Your task to perform on an android device: add a contact in the contacts app Image 0: 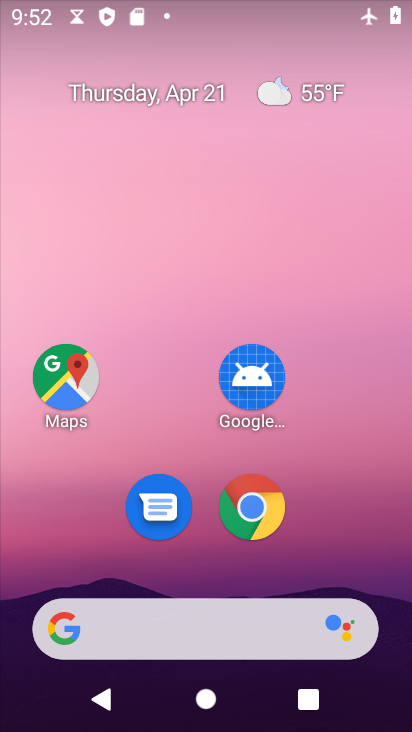
Step 0: drag from (278, 313) to (279, 224)
Your task to perform on an android device: add a contact in the contacts app Image 1: 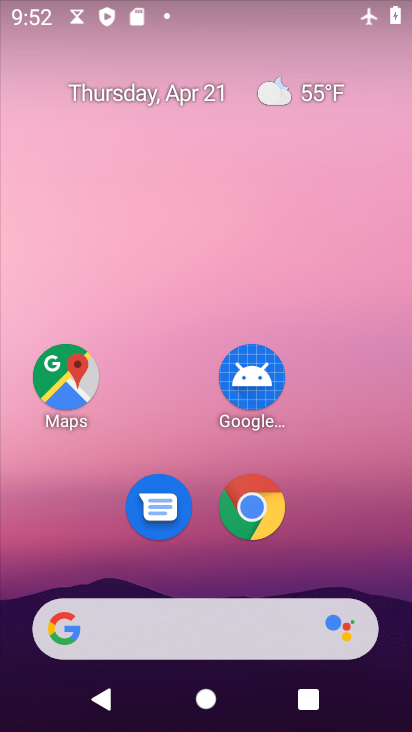
Step 1: drag from (230, 413) to (233, 266)
Your task to perform on an android device: add a contact in the contacts app Image 2: 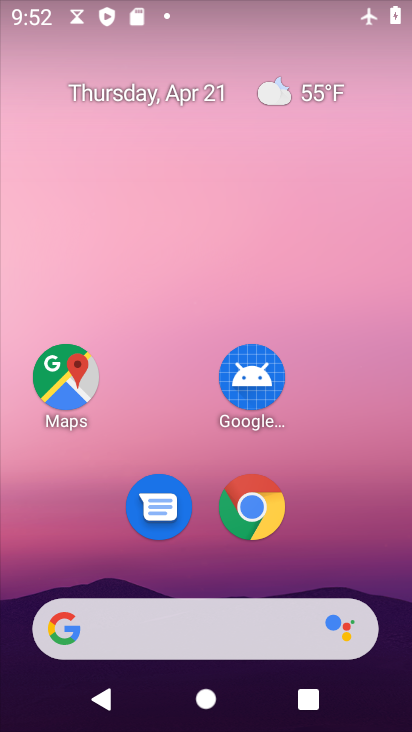
Step 2: drag from (326, 556) to (300, 232)
Your task to perform on an android device: add a contact in the contacts app Image 3: 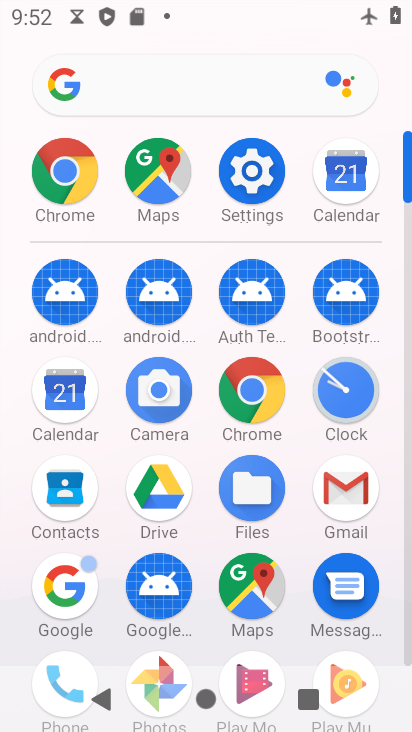
Step 3: drag from (185, 595) to (240, 173)
Your task to perform on an android device: add a contact in the contacts app Image 4: 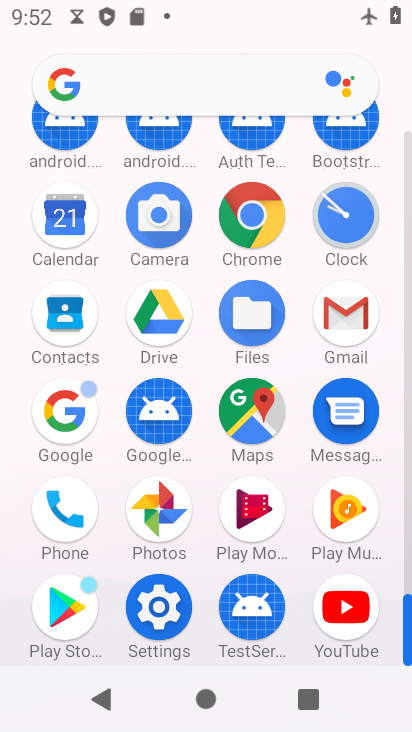
Step 4: click (63, 498)
Your task to perform on an android device: add a contact in the contacts app Image 5: 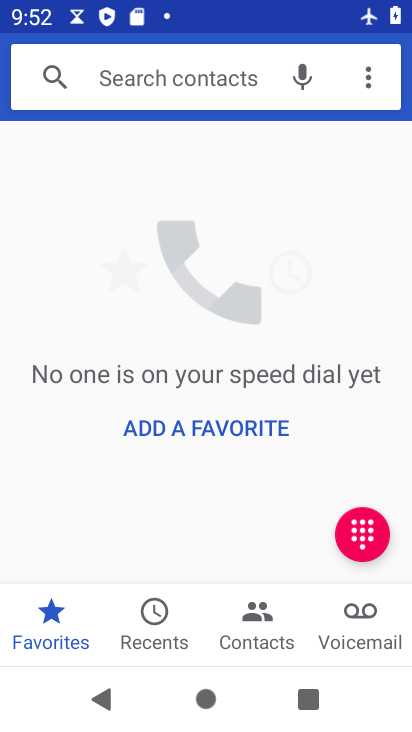
Step 5: click (230, 427)
Your task to perform on an android device: add a contact in the contacts app Image 6: 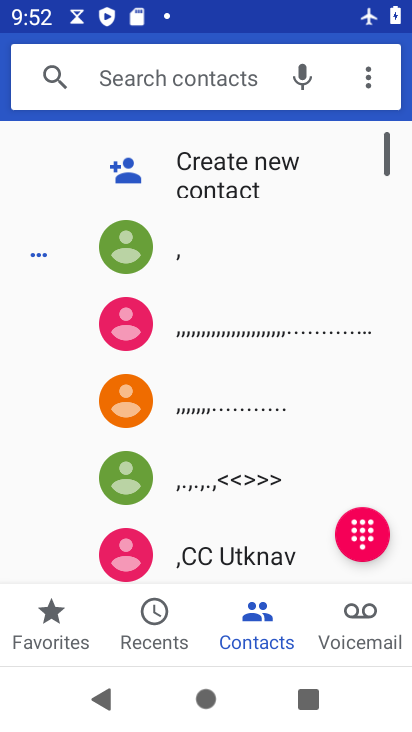
Step 6: click (224, 172)
Your task to perform on an android device: add a contact in the contacts app Image 7: 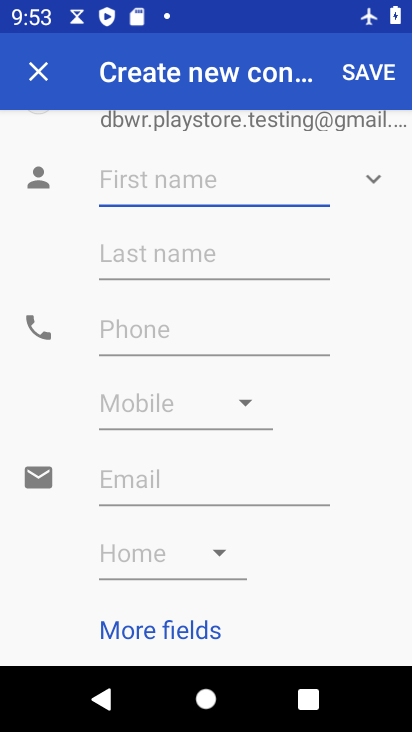
Step 7: type "sssssss"
Your task to perform on an android device: add a contact in the contacts app Image 8: 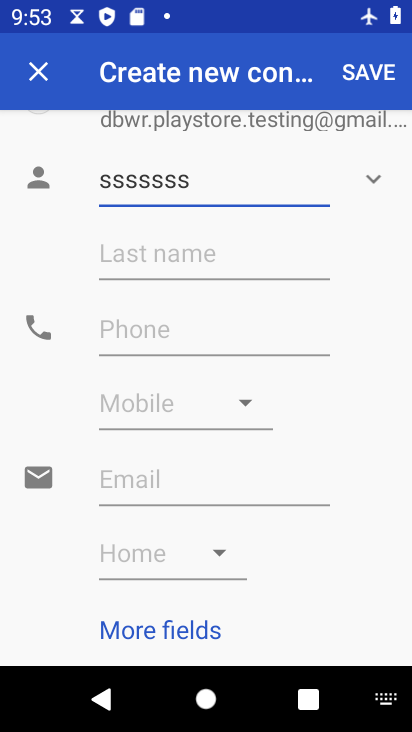
Step 8: click (202, 320)
Your task to perform on an android device: add a contact in the contacts app Image 9: 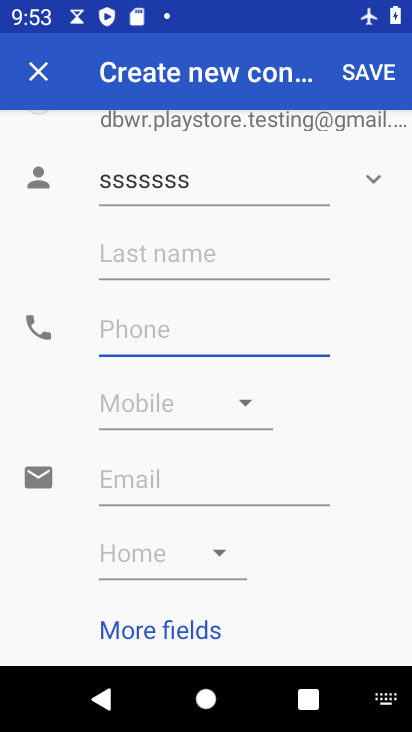
Step 9: type "33333333333"
Your task to perform on an android device: add a contact in the contacts app Image 10: 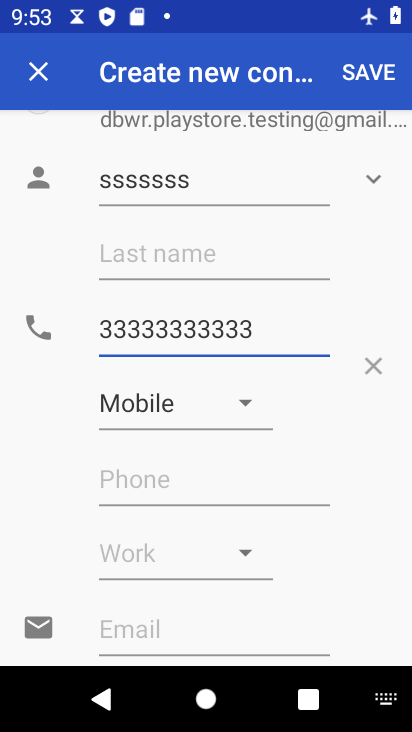
Step 10: click (359, 67)
Your task to perform on an android device: add a contact in the contacts app Image 11: 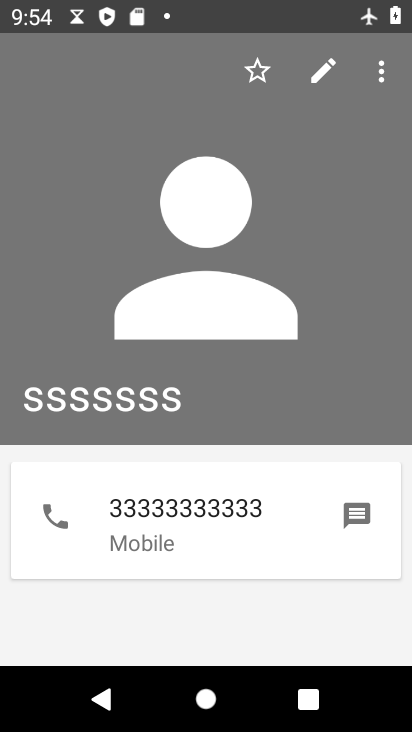
Step 11: task complete